Your task to perform on an android device: find snoozed emails in the gmail app Image 0: 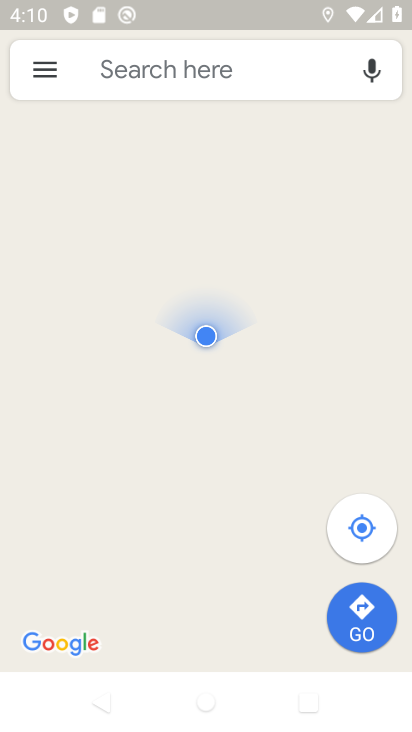
Step 0: press home button
Your task to perform on an android device: find snoozed emails in the gmail app Image 1: 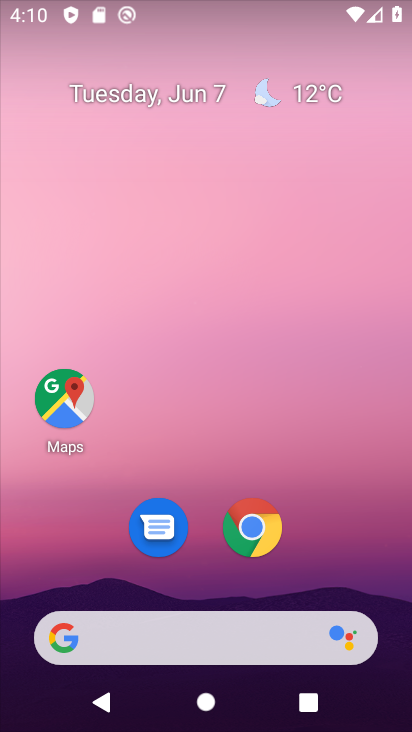
Step 1: drag from (342, 424) to (315, 19)
Your task to perform on an android device: find snoozed emails in the gmail app Image 2: 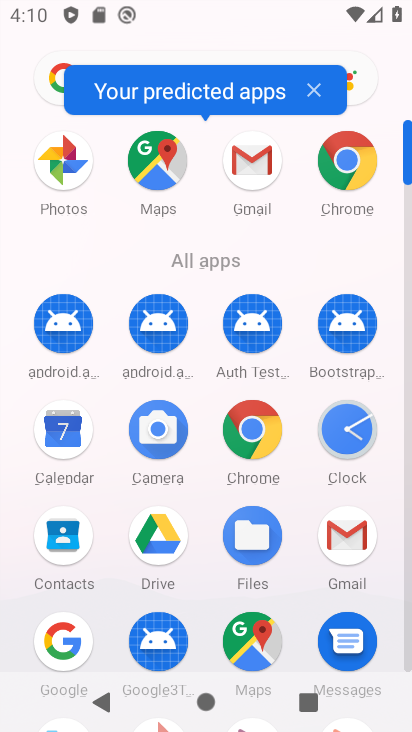
Step 2: click (247, 159)
Your task to perform on an android device: find snoozed emails in the gmail app Image 3: 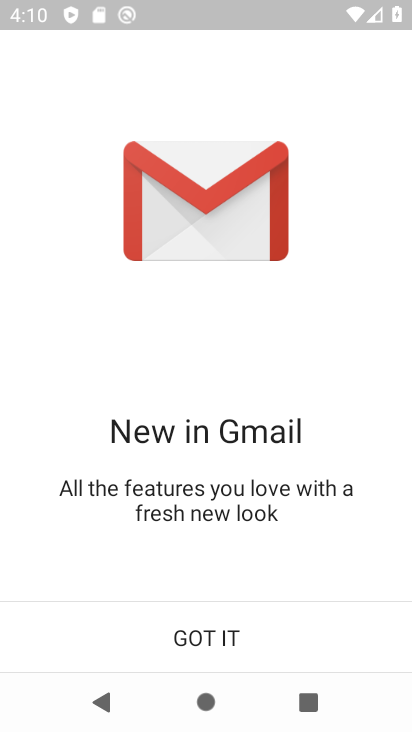
Step 3: click (206, 637)
Your task to perform on an android device: find snoozed emails in the gmail app Image 4: 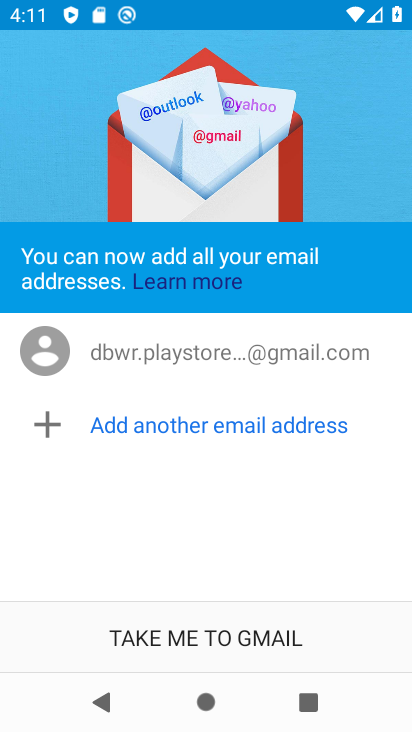
Step 4: click (206, 637)
Your task to perform on an android device: find snoozed emails in the gmail app Image 5: 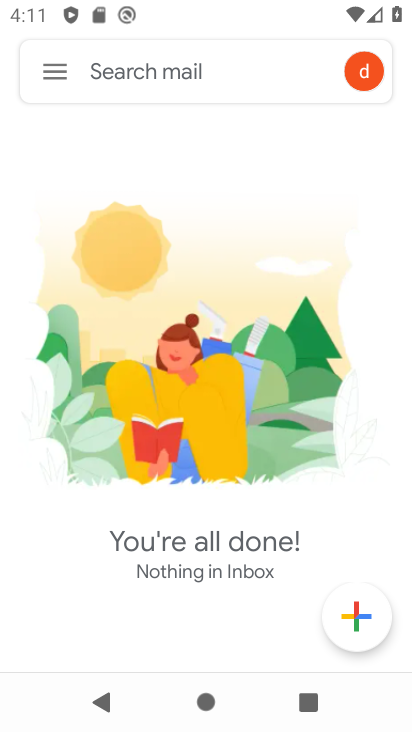
Step 5: click (56, 74)
Your task to perform on an android device: find snoozed emails in the gmail app Image 6: 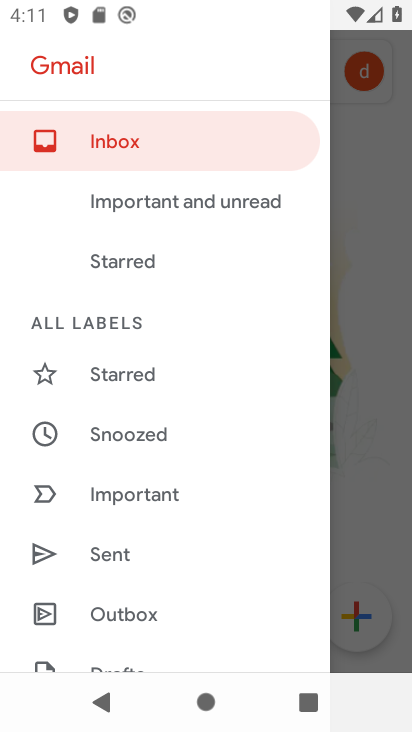
Step 6: drag from (139, 516) to (156, 422)
Your task to perform on an android device: find snoozed emails in the gmail app Image 7: 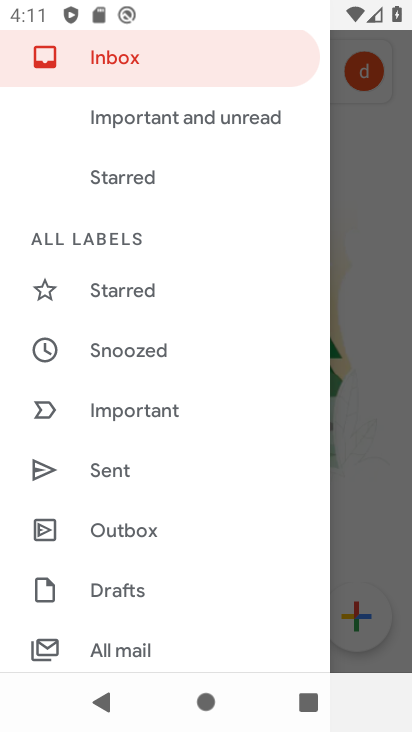
Step 7: click (152, 335)
Your task to perform on an android device: find snoozed emails in the gmail app Image 8: 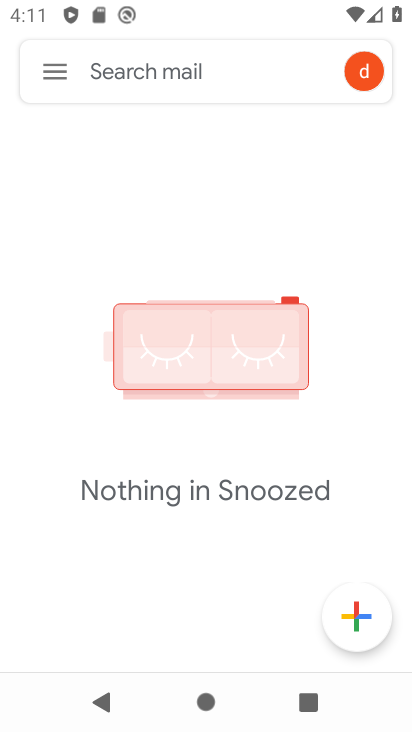
Step 8: task complete